Your task to perform on an android device: turn off wifi Image 0: 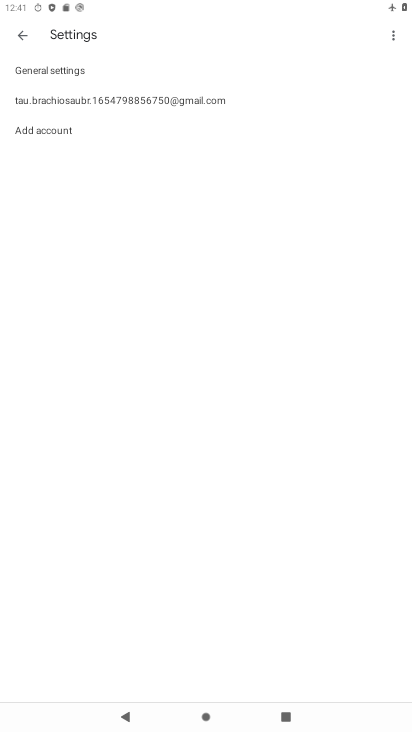
Step 0: press home button
Your task to perform on an android device: turn off wifi Image 1: 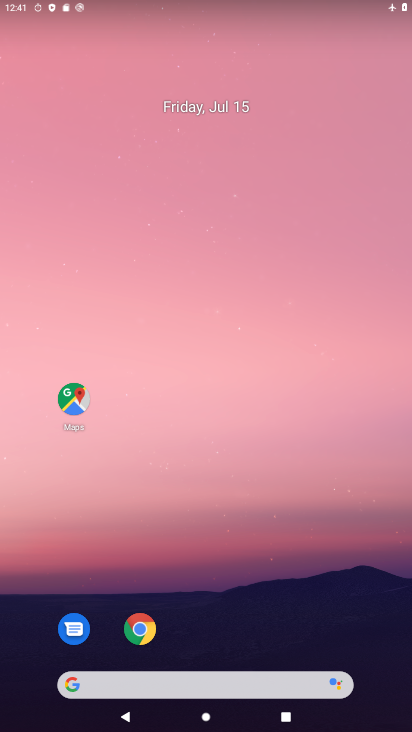
Step 1: drag from (234, 620) to (267, 1)
Your task to perform on an android device: turn off wifi Image 2: 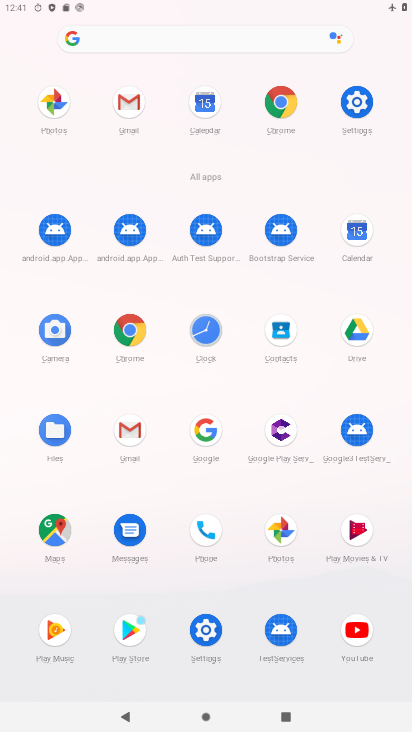
Step 2: click (355, 114)
Your task to perform on an android device: turn off wifi Image 3: 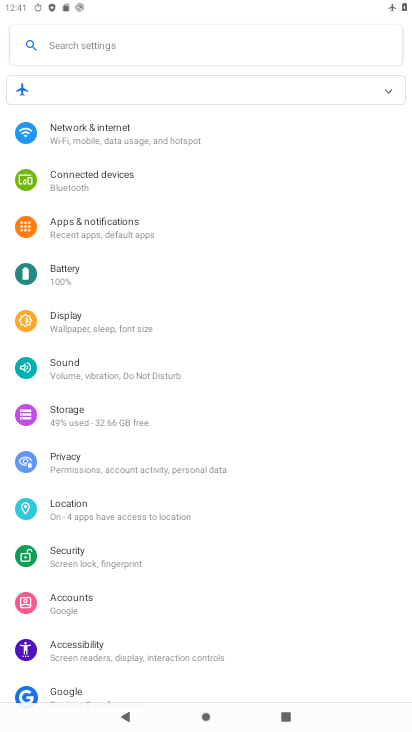
Step 3: click (114, 134)
Your task to perform on an android device: turn off wifi Image 4: 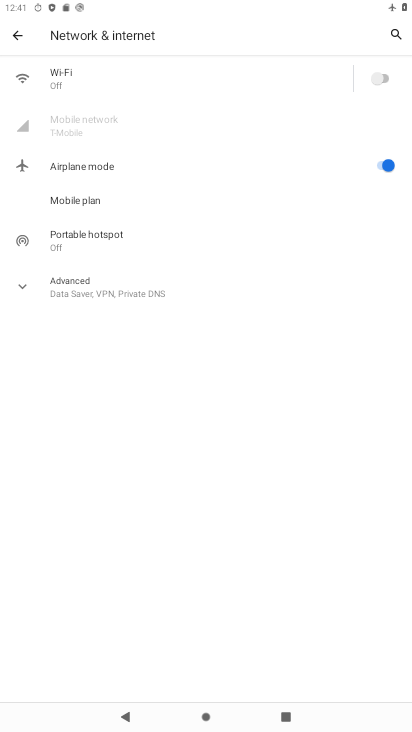
Step 4: task complete